Your task to perform on an android device: clear all cookies in the chrome app Image 0: 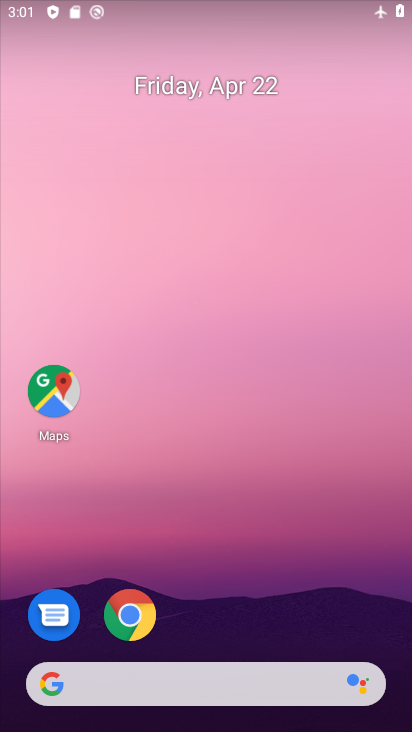
Step 0: click (136, 615)
Your task to perform on an android device: clear all cookies in the chrome app Image 1: 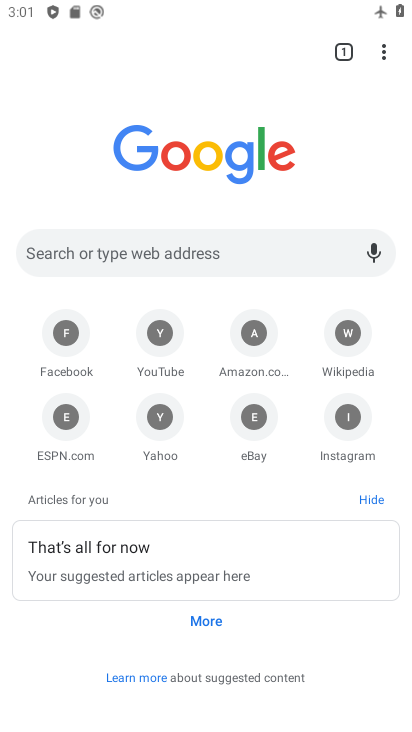
Step 1: click (379, 47)
Your task to perform on an android device: clear all cookies in the chrome app Image 2: 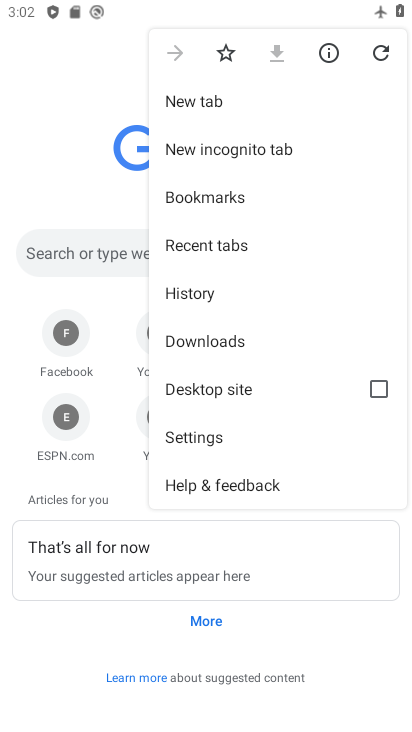
Step 2: click (200, 437)
Your task to perform on an android device: clear all cookies in the chrome app Image 3: 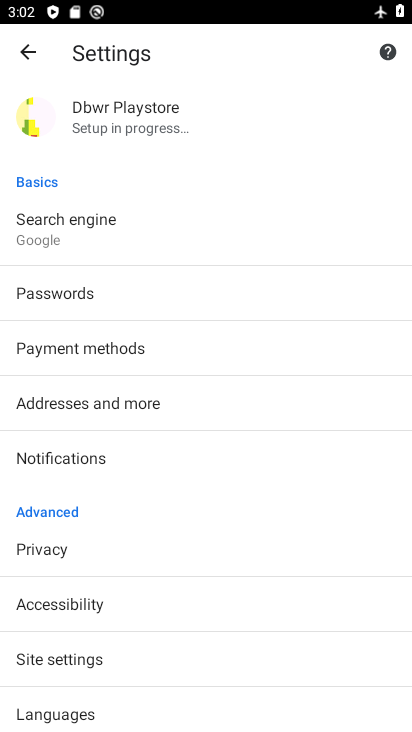
Step 3: click (67, 550)
Your task to perform on an android device: clear all cookies in the chrome app Image 4: 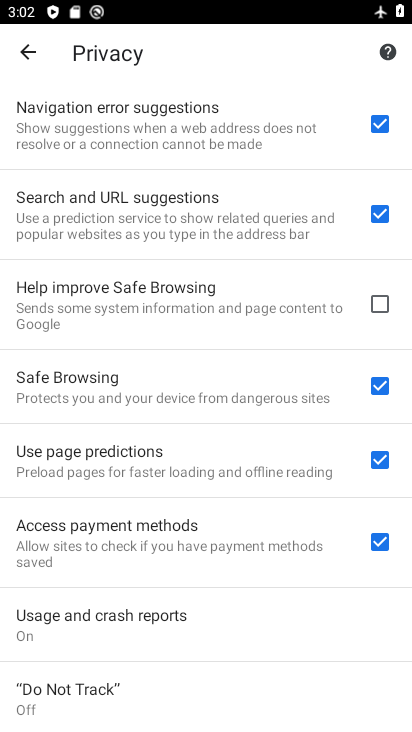
Step 4: drag from (117, 689) to (182, 351)
Your task to perform on an android device: clear all cookies in the chrome app Image 5: 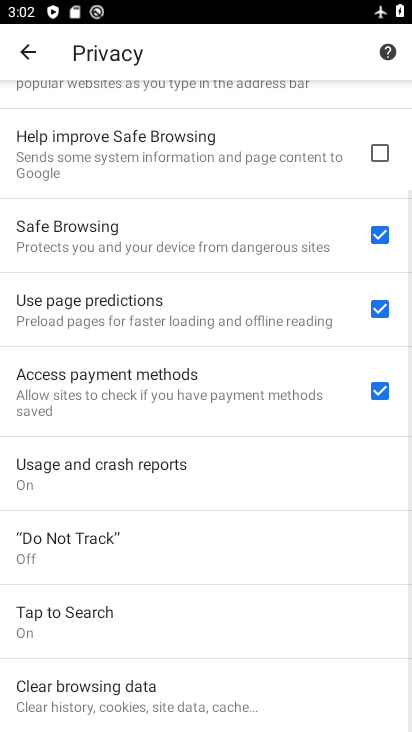
Step 5: click (130, 709)
Your task to perform on an android device: clear all cookies in the chrome app Image 6: 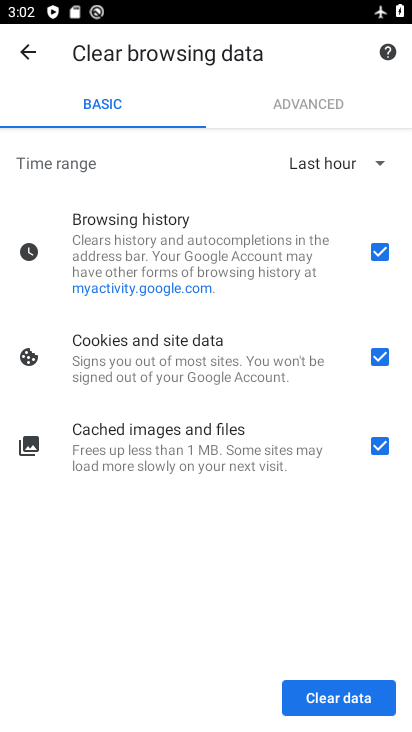
Step 6: click (382, 252)
Your task to perform on an android device: clear all cookies in the chrome app Image 7: 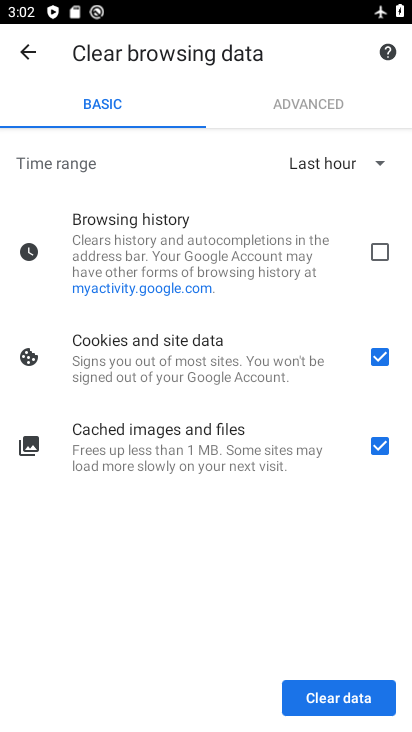
Step 7: click (381, 447)
Your task to perform on an android device: clear all cookies in the chrome app Image 8: 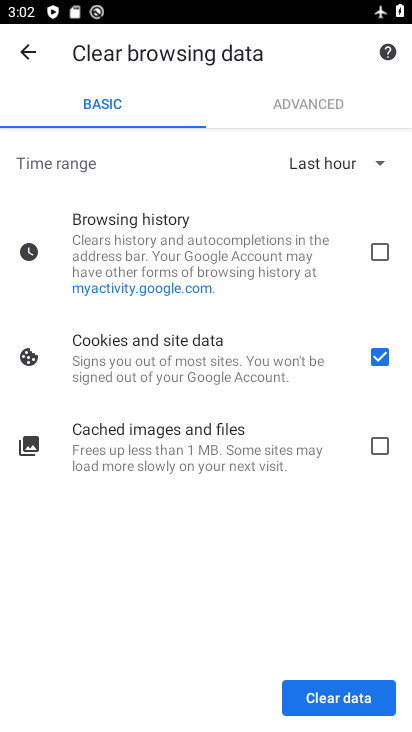
Step 8: click (336, 698)
Your task to perform on an android device: clear all cookies in the chrome app Image 9: 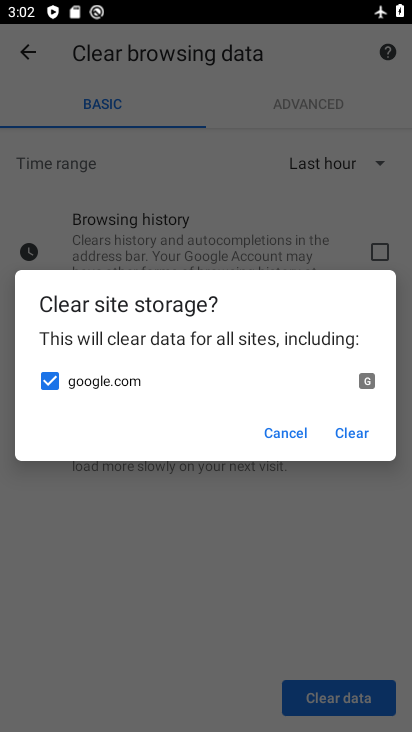
Step 9: click (368, 430)
Your task to perform on an android device: clear all cookies in the chrome app Image 10: 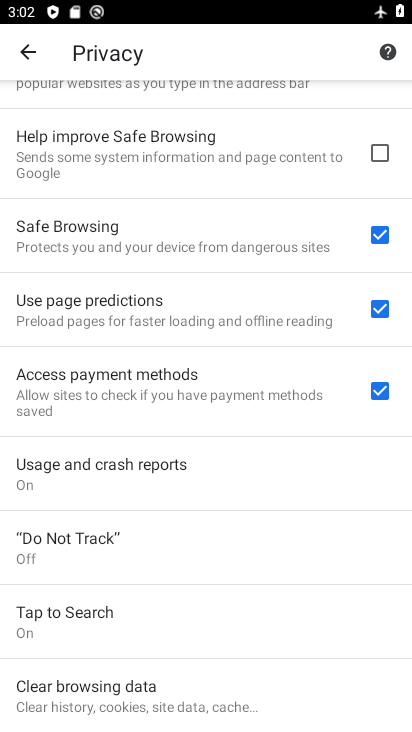
Step 10: task complete